Your task to perform on an android device: turn on translation in the chrome app Image 0: 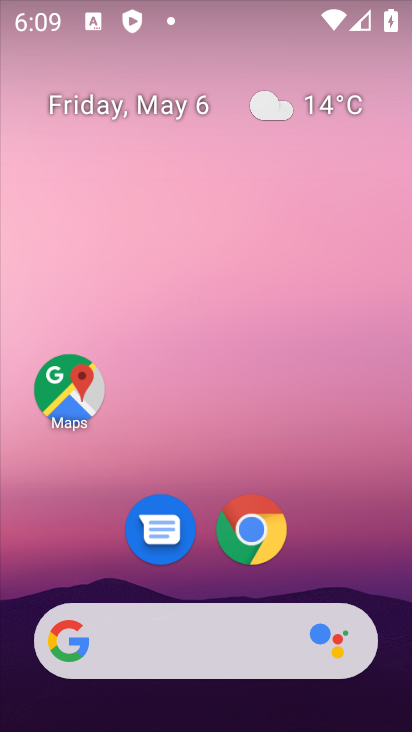
Step 0: click (255, 530)
Your task to perform on an android device: turn on translation in the chrome app Image 1: 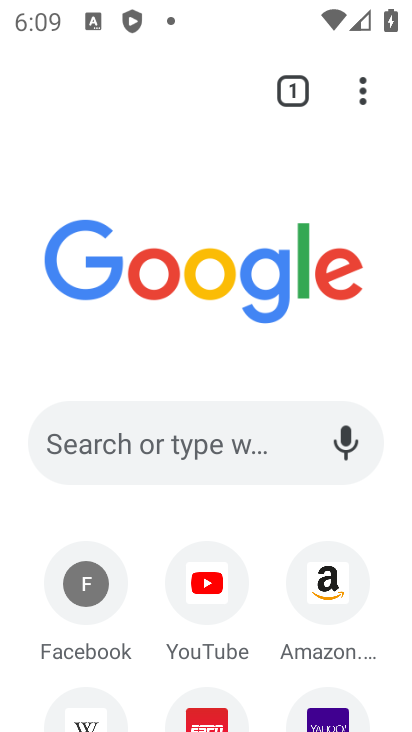
Step 1: click (363, 87)
Your task to perform on an android device: turn on translation in the chrome app Image 2: 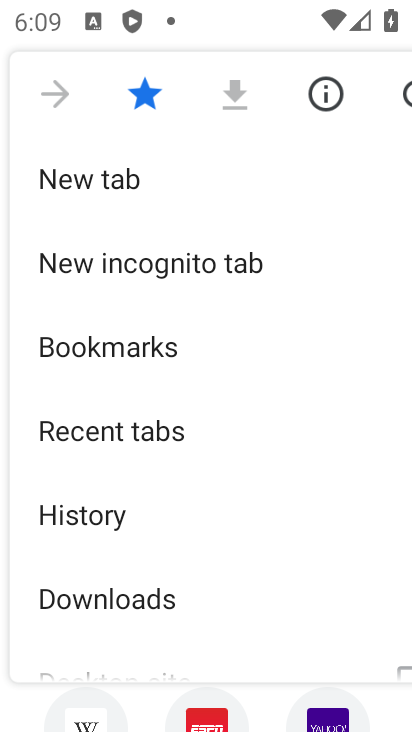
Step 2: drag from (200, 589) to (165, 178)
Your task to perform on an android device: turn on translation in the chrome app Image 3: 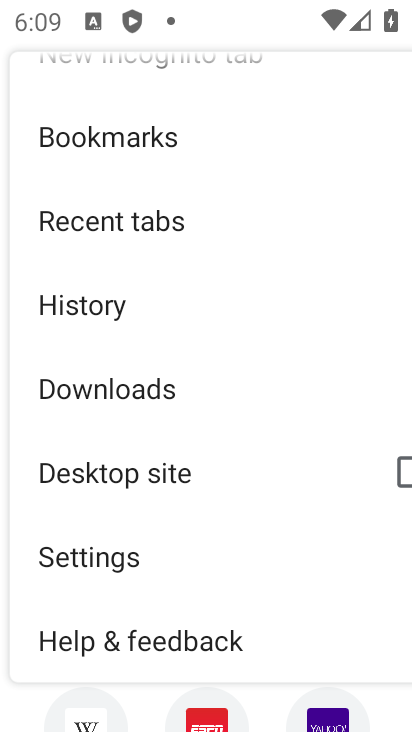
Step 3: click (138, 547)
Your task to perform on an android device: turn on translation in the chrome app Image 4: 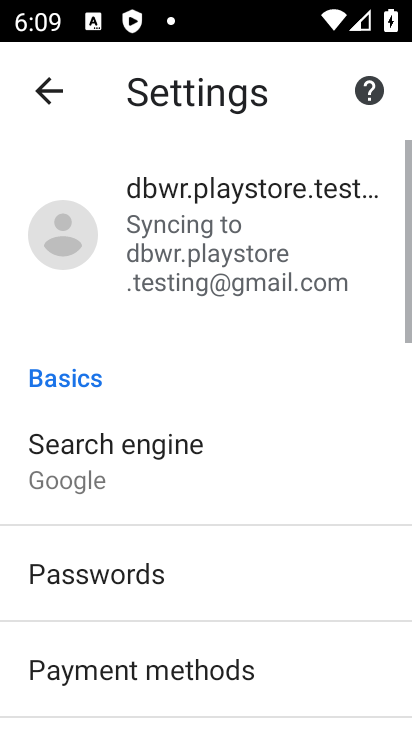
Step 4: drag from (223, 568) to (168, 217)
Your task to perform on an android device: turn on translation in the chrome app Image 5: 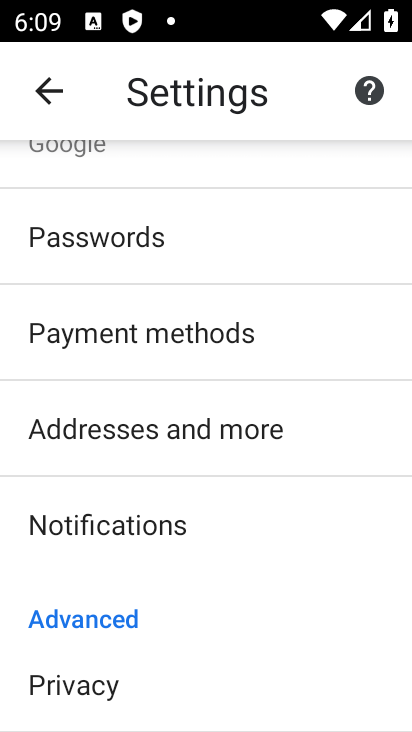
Step 5: drag from (210, 593) to (215, 229)
Your task to perform on an android device: turn on translation in the chrome app Image 6: 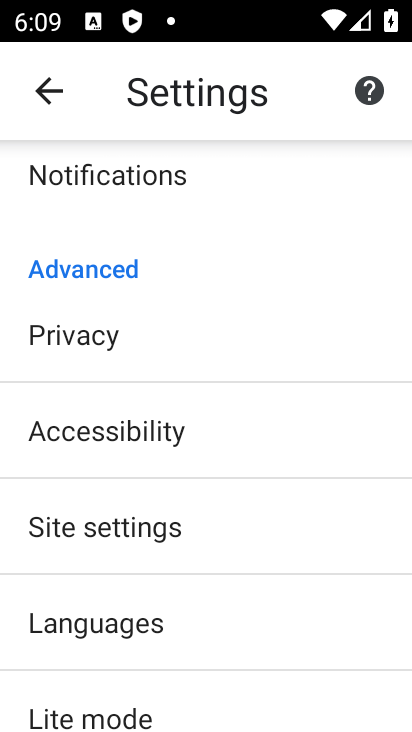
Step 6: click (136, 607)
Your task to perform on an android device: turn on translation in the chrome app Image 7: 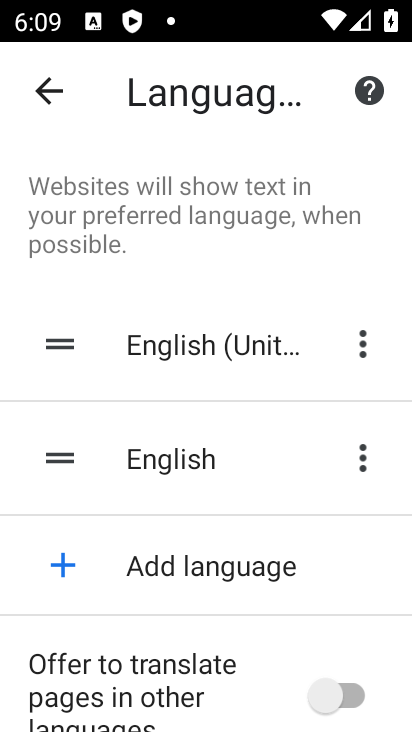
Step 7: click (341, 686)
Your task to perform on an android device: turn on translation in the chrome app Image 8: 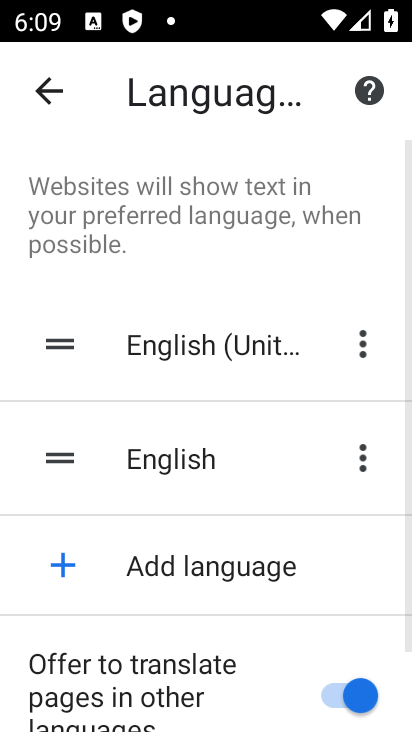
Step 8: task complete